Your task to perform on an android device: Search for vegetarian restaurants on Maps Image 0: 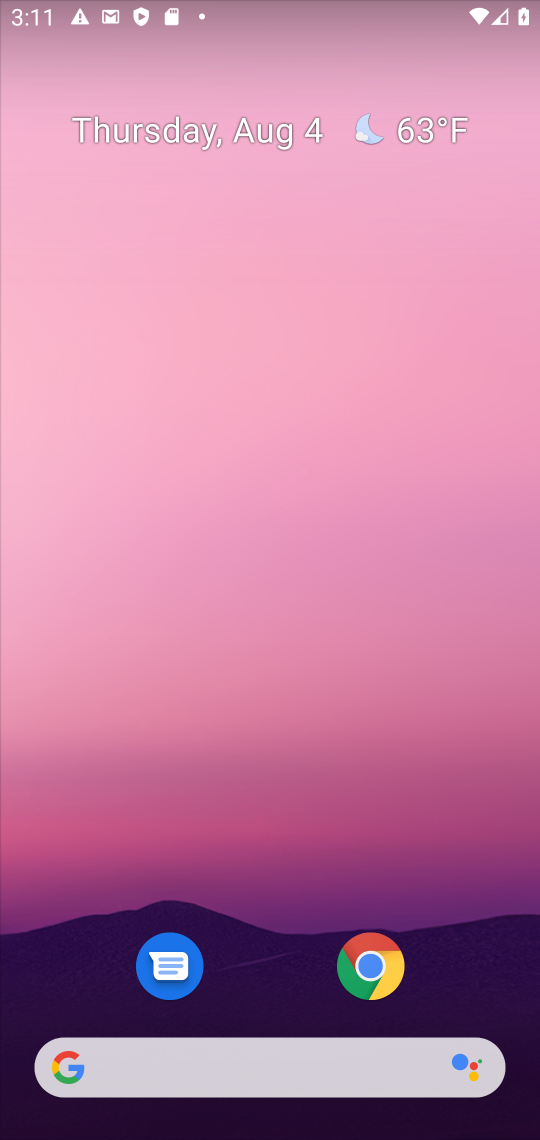
Step 0: drag from (260, 867) to (260, 210)
Your task to perform on an android device: Search for vegetarian restaurants on Maps Image 1: 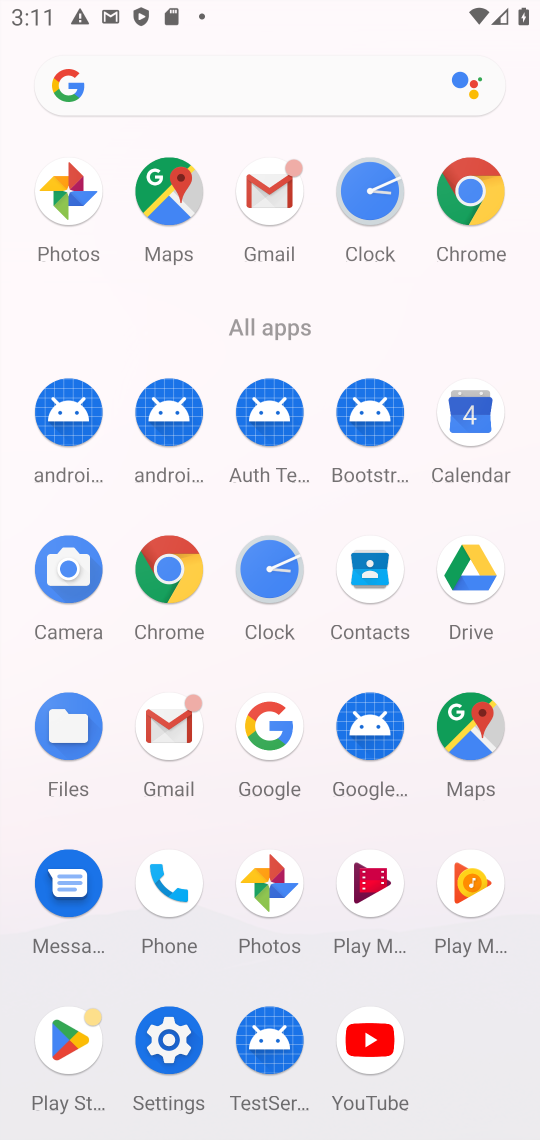
Step 1: click (153, 191)
Your task to perform on an android device: Search for vegetarian restaurants on Maps Image 2: 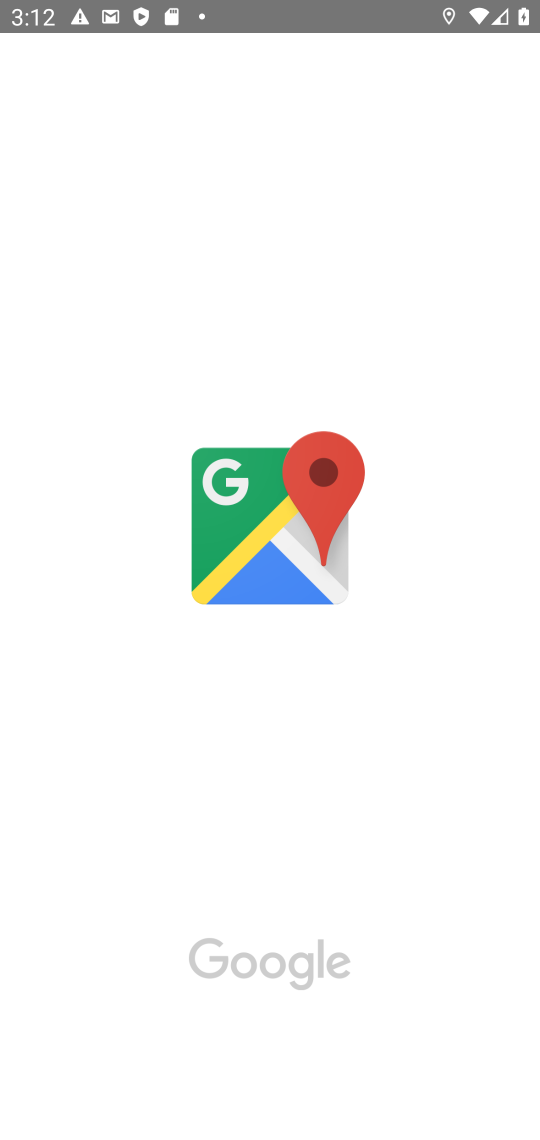
Step 2: task complete